Your task to perform on an android device: Go to Maps Image 0: 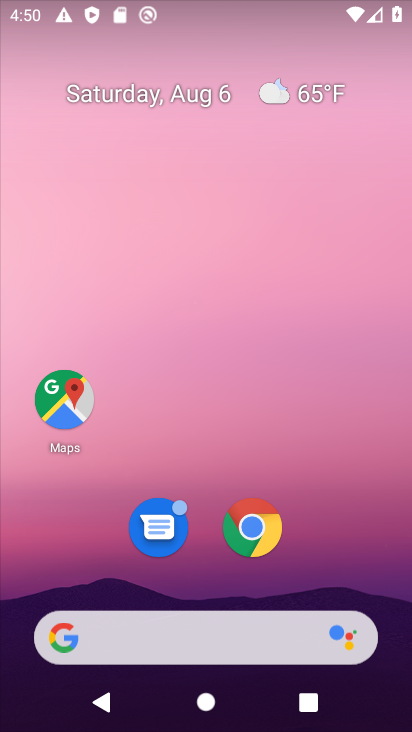
Step 0: click (60, 415)
Your task to perform on an android device: Go to Maps Image 1: 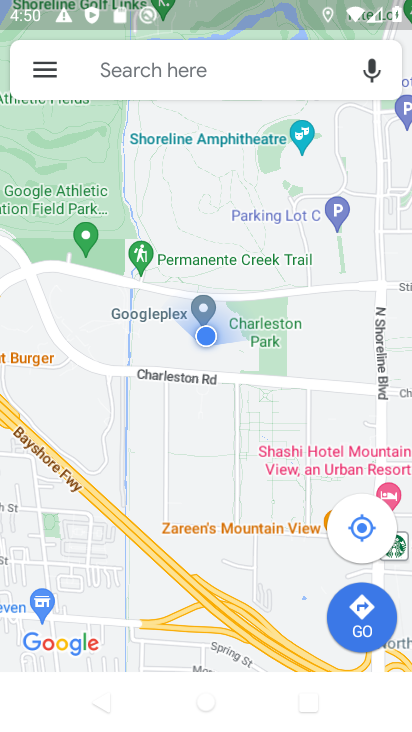
Step 1: task complete